Your task to perform on an android device: Search for vegetarian restaurants on Maps Image 0: 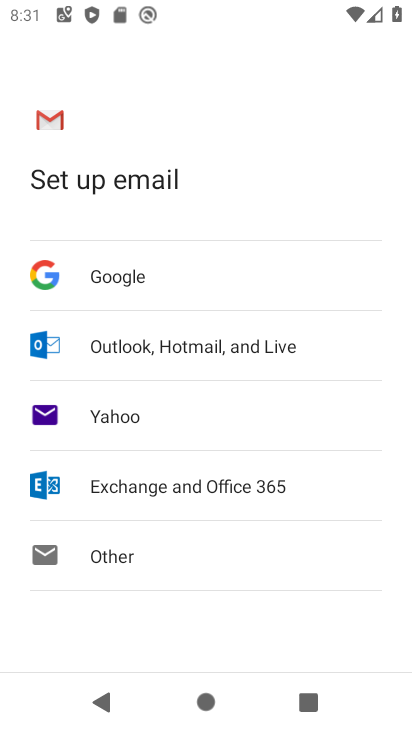
Step 0: press home button
Your task to perform on an android device: Search for vegetarian restaurants on Maps Image 1: 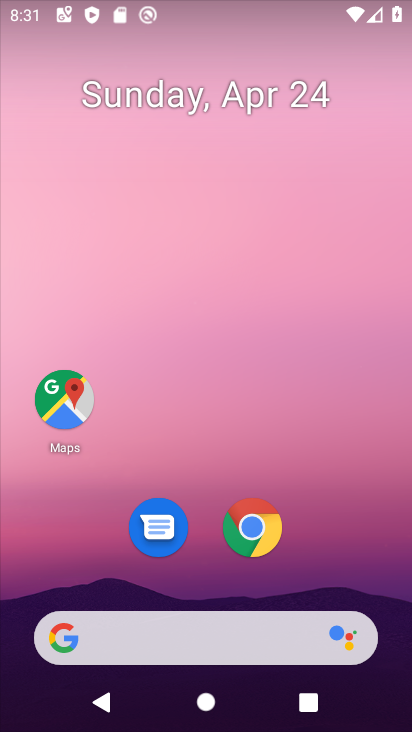
Step 1: drag from (356, 597) to (247, 57)
Your task to perform on an android device: Search for vegetarian restaurants on Maps Image 2: 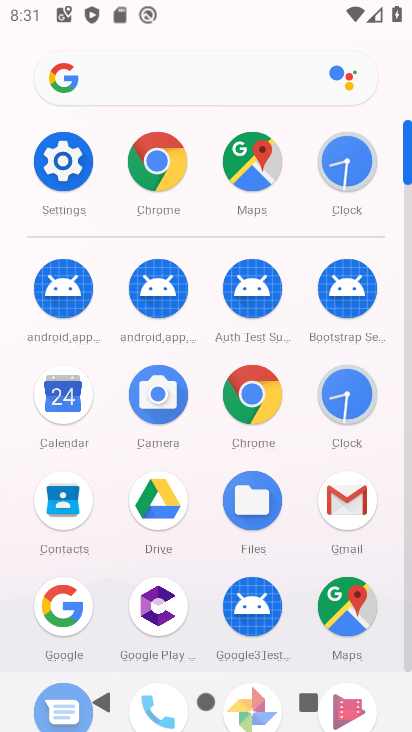
Step 2: click (245, 153)
Your task to perform on an android device: Search for vegetarian restaurants on Maps Image 3: 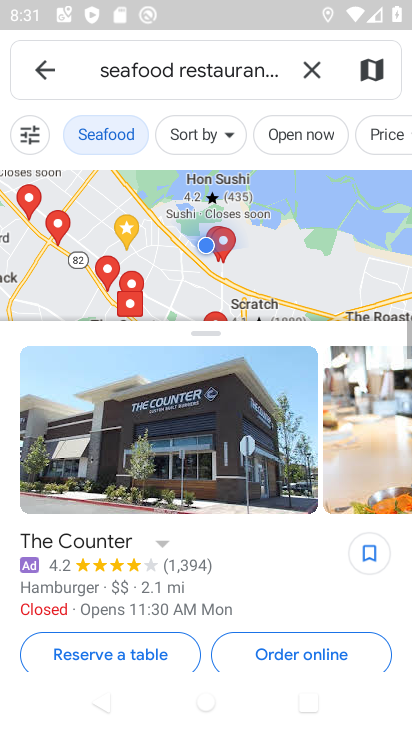
Step 3: click (305, 70)
Your task to perform on an android device: Search for vegetarian restaurants on Maps Image 4: 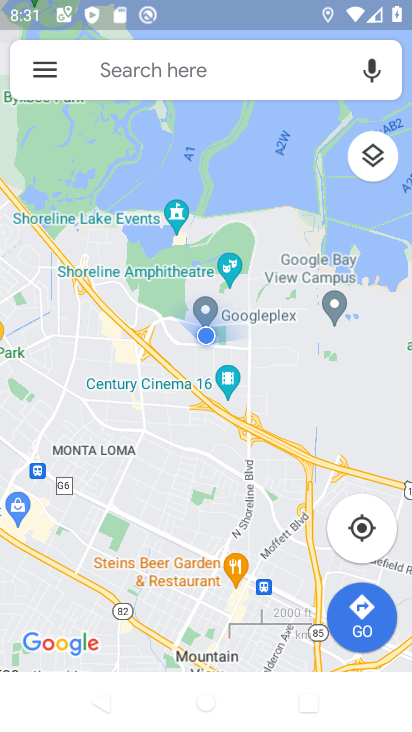
Step 4: click (125, 76)
Your task to perform on an android device: Search for vegetarian restaurants on Maps Image 5: 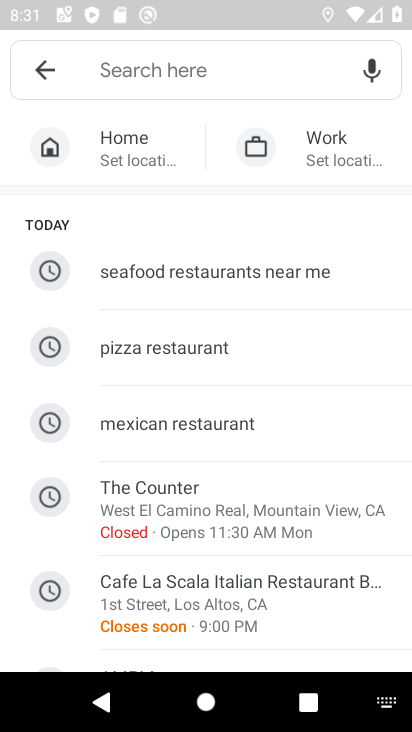
Step 5: drag from (157, 578) to (233, 191)
Your task to perform on an android device: Search for vegetarian restaurants on Maps Image 6: 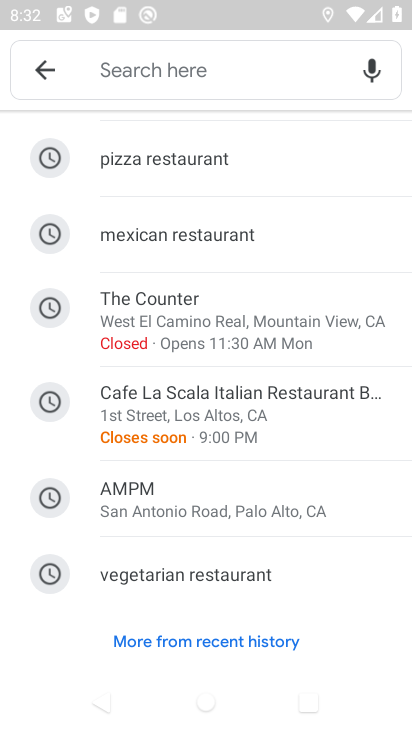
Step 6: click (192, 591)
Your task to perform on an android device: Search for vegetarian restaurants on Maps Image 7: 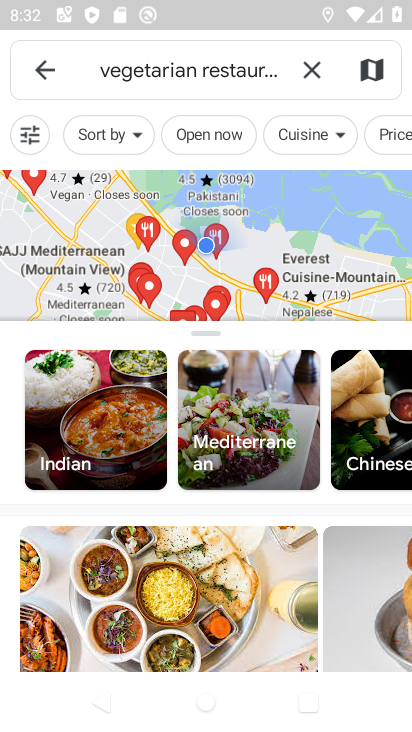
Step 7: task complete